Your task to perform on an android device: Set the phone to "Do not disturb". Image 0: 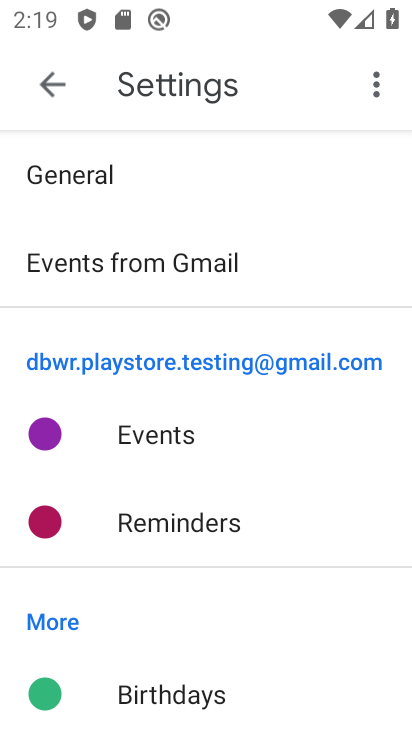
Step 0: press home button
Your task to perform on an android device: Set the phone to "Do not disturb". Image 1: 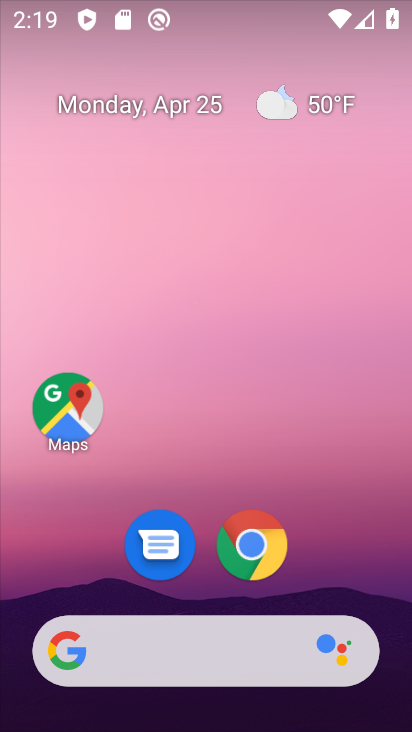
Step 1: drag from (328, 556) to (220, 133)
Your task to perform on an android device: Set the phone to "Do not disturb". Image 2: 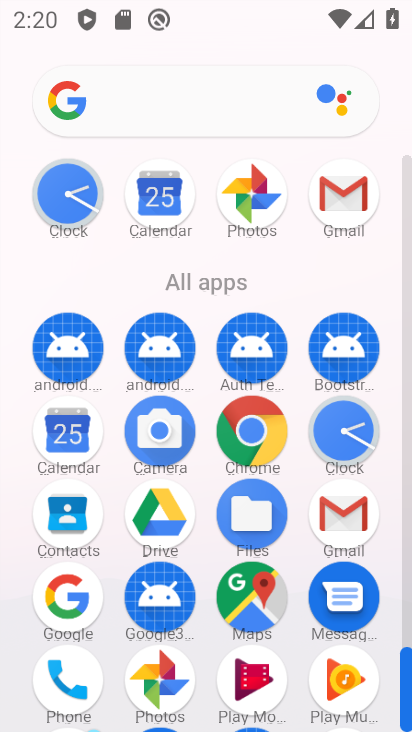
Step 2: drag from (300, 649) to (239, 231)
Your task to perform on an android device: Set the phone to "Do not disturb". Image 3: 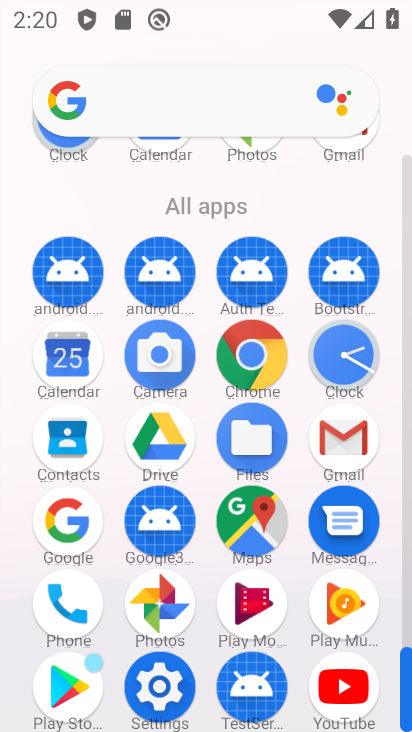
Step 3: click (159, 674)
Your task to perform on an android device: Set the phone to "Do not disturb". Image 4: 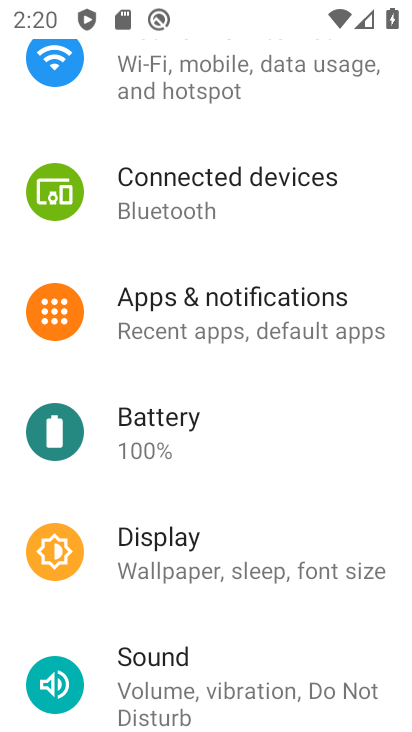
Step 4: click (189, 675)
Your task to perform on an android device: Set the phone to "Do not disturb". Image 5: 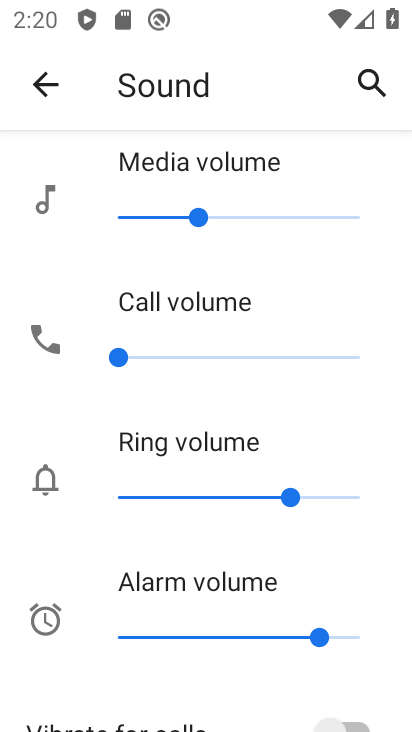
Step 5: drag from (214, 657) to (199, 241)
Your task to perform on an android device: Set the phone to "Do not disturb". Image 6: 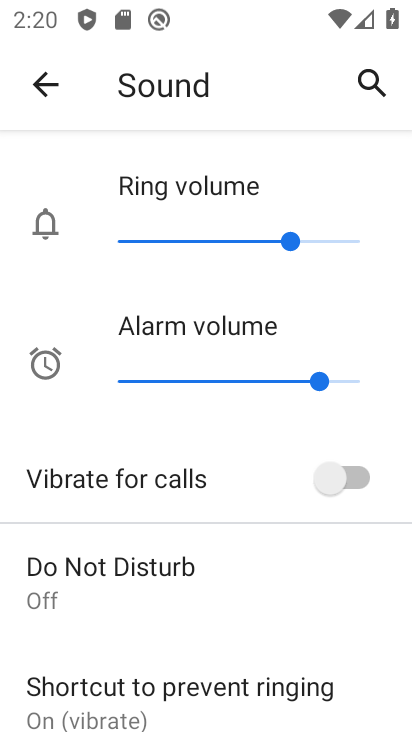
Step 6: click (124, 566)
Your task to perform on an android device: Set the phone to "Do not disturb". Image 7: 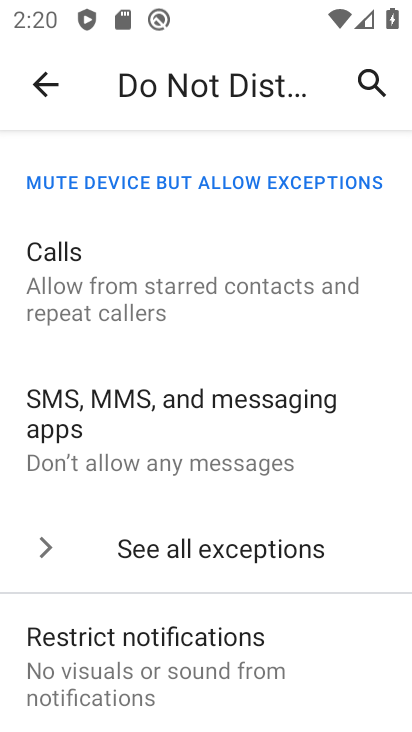
Step 7: drag from (211, 608) to (200, 139)
Your task to perform on an android device: Set the phone to "Do not disturb". Image 8: 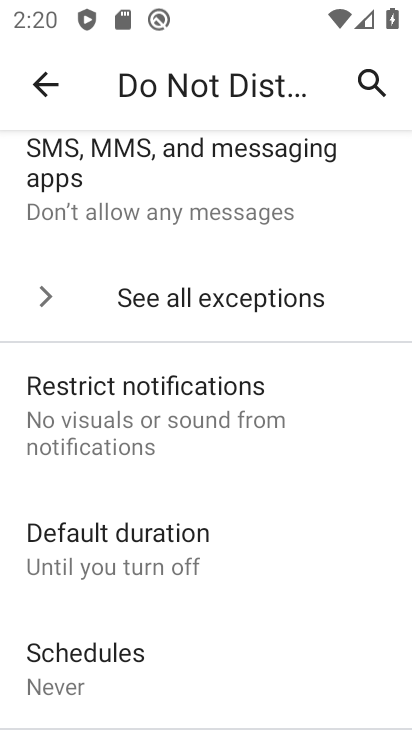
Step 8: drag from (202, 625) to (178, 235)
Your task to perform on an android device: Set the phone to "Do not disturb". Image 9: 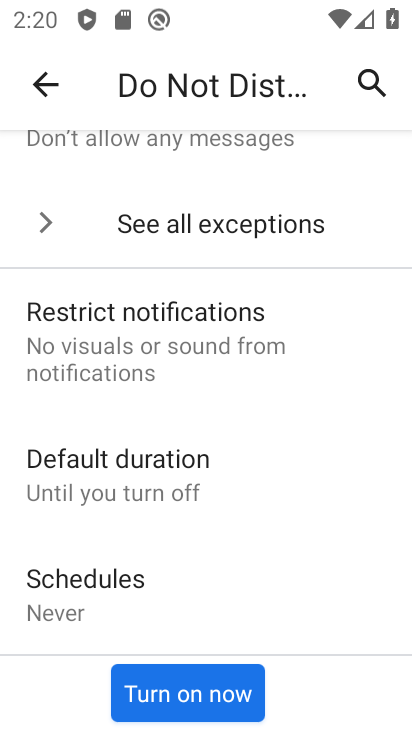
Step 9: click (193, 679)
Your task to perform on an android device: Set the phone to "Do not disturb". Image 10: 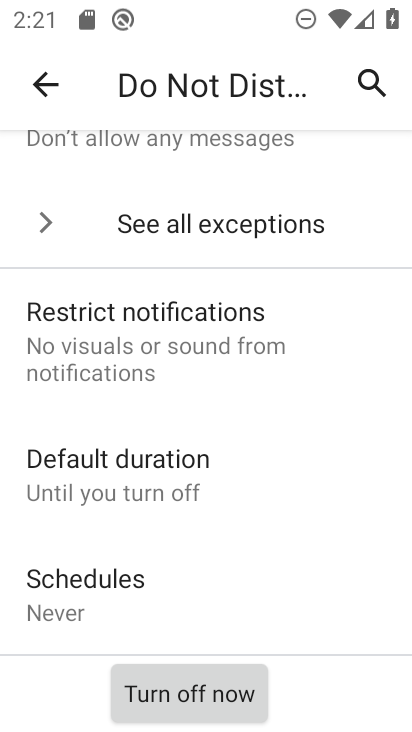
Step 10: task complete